Your task to perform on an android device: Is it going to rain today? Image 0: 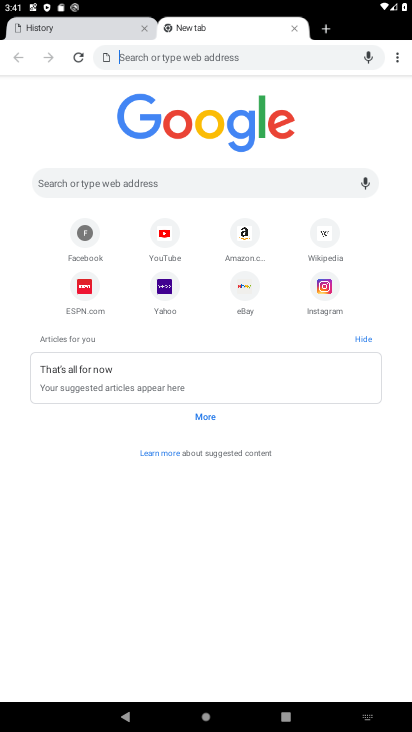
Step 0: press home button
Your task to perform on an android device: Is it going to rain today? Image 1: 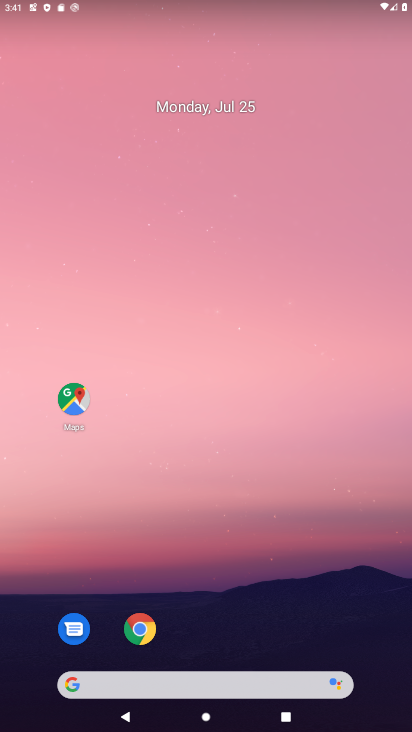
Step 1: drag from (266, 692) to (210, 4)
Your task to perform on an android device: Is it going to rain today? Image 2: 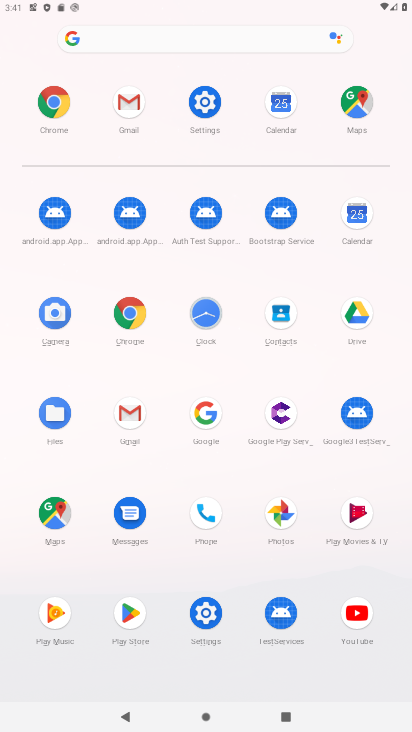
Step 2: click (198, 31)
Your task to perform on an android device: Is it going to rain today? Image 3: 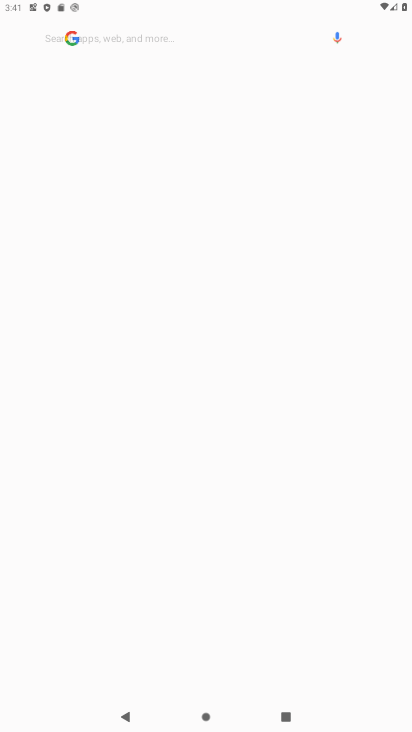
Step 3: click (128, 315)
Your task to perform on an android device: Is it going to rain today? Image 4: 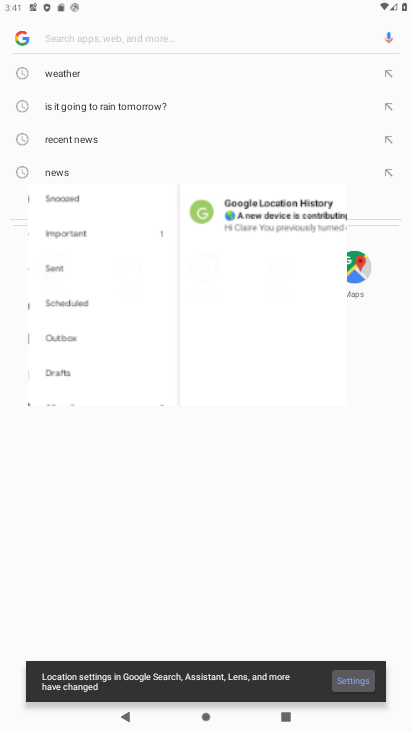
Step 4: press home button
Your task to perform on an android device: Is it going to rain today? Image 5: 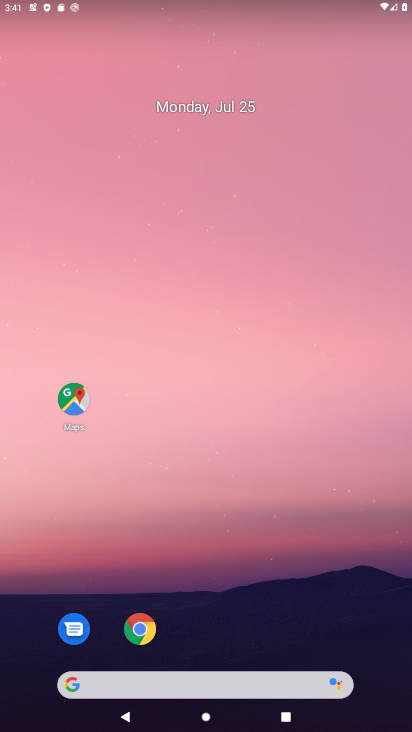
Step 5: drag from (267, 667) to (350, 262)
Your task to perform on an android device: Is it going to rain today? Image 6: 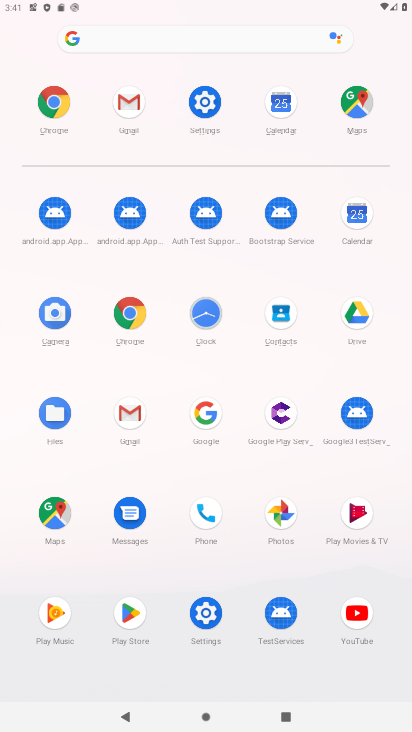
Step 6: click (137, 324)
Your task to perform on an android device: Is it going to rain today? Image 7: 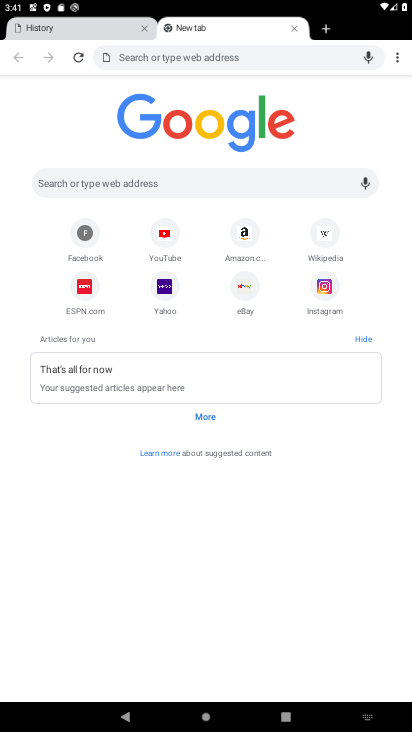
Step 7: click (95, 173)
Your task to perform on an android device: Is it going to rain today? Image 8: 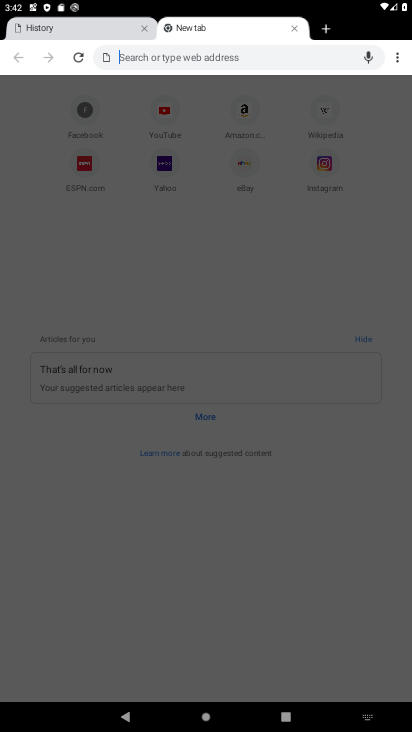
Step 8: type "is it going to rain today"
Your task to perform on an android device: Is it going to rain today? Image 9: 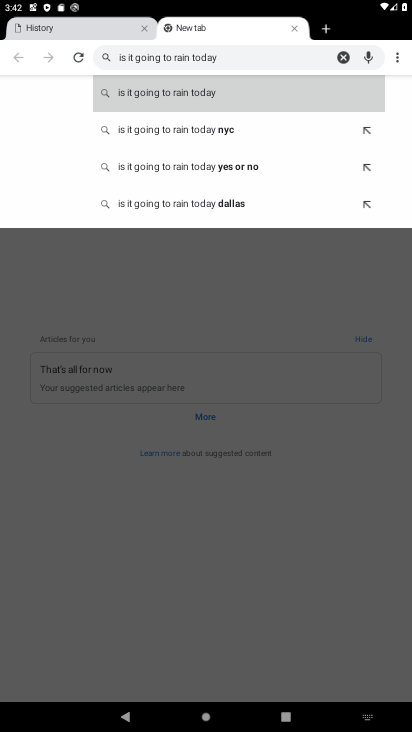
Step 9: click (241, 92)
Your task to perform on an android device: Is it going to rain today? Image 10: 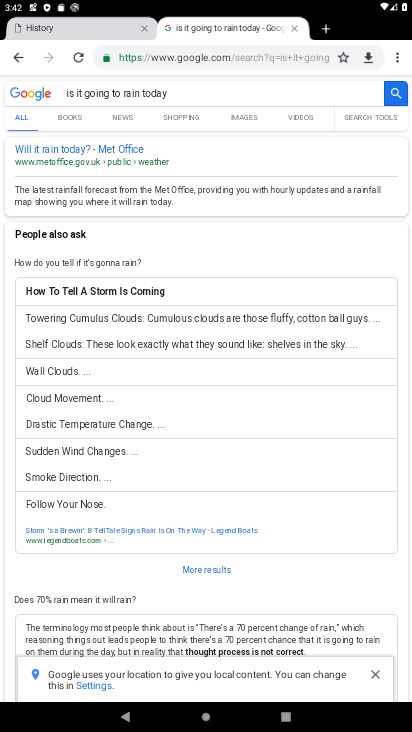
Step 10: task complete